Your task to perform on an android device: delete a single message in the gmail app Image 0: 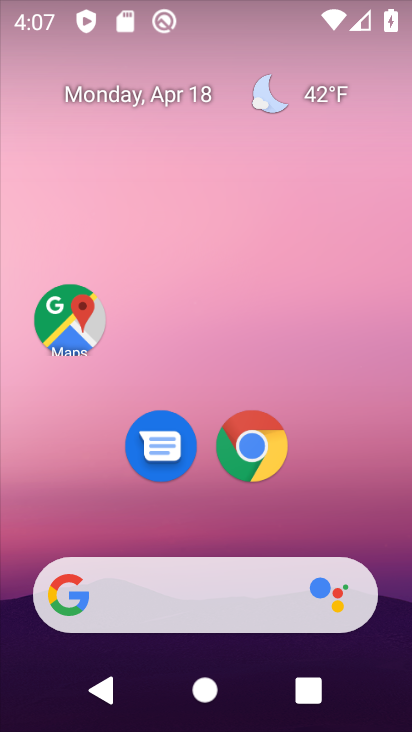
Step 0: drag from (393, 503) to (354, 126)
Your task to perform on an android device: delete a single message in the gmail app Image 1: 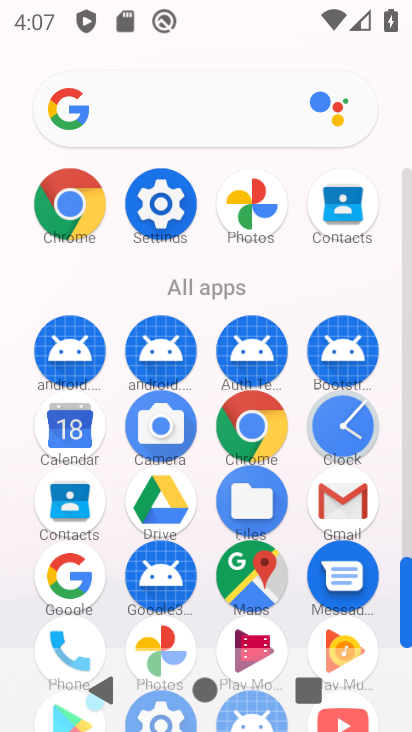
Step 1: click (331, 510)
Your task to perform on an android device: delete a single message in the gmail app Image 2: 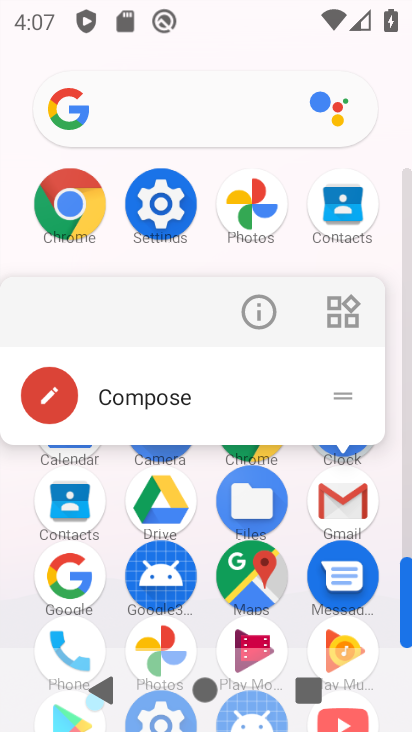
Step 2: click (337, 505)
Your task to perform on an android device: delete a single message in the gmail app Image 3: 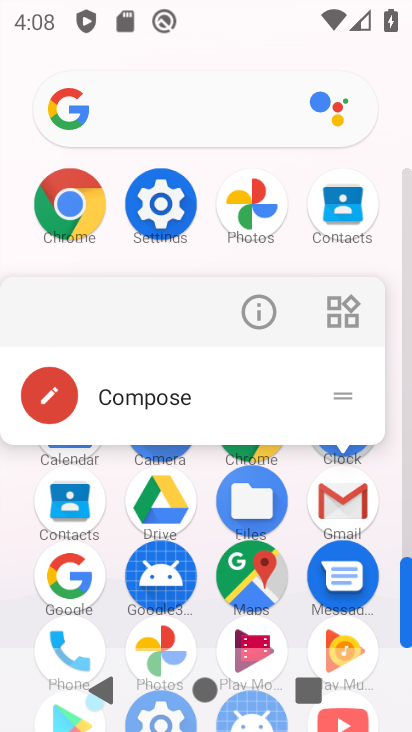
Step 3: click (344, 503)
Your task to perform on an android device: delete a single message in the gmail app Image 4: 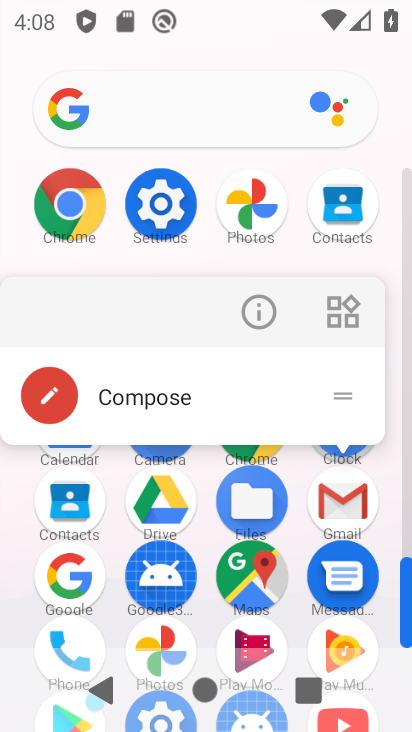
Step 4: click (343, 504)
Your task to perform on an android device: delete a single message in the gmail app Image 5: 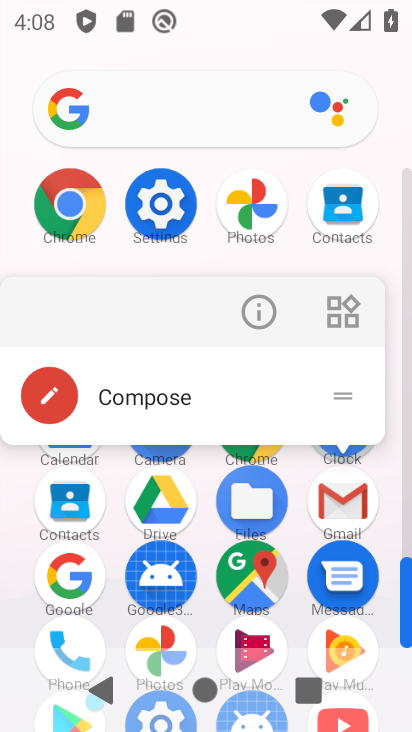
Step 5: click (353, 502)
Your task to perform on an android device: delete a single message in the gmail app Image 6: 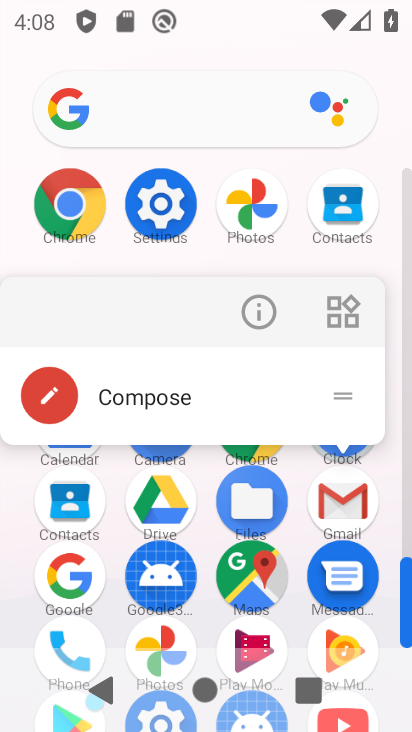
Step 6: click (345, 511)
Your task to perform on an android device: delete a single message in the gmail app Image 7: 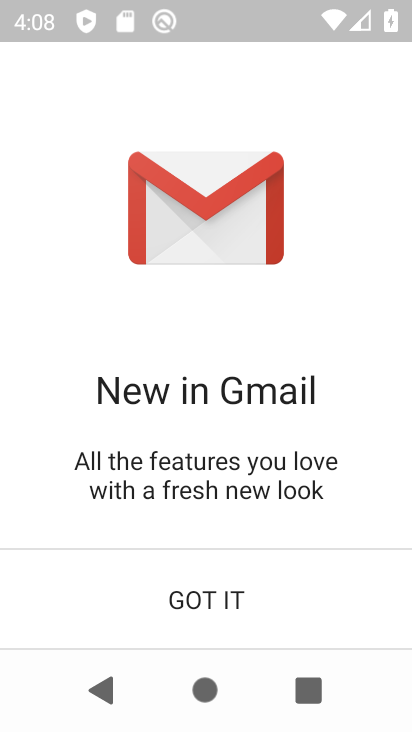
Step 7: click (206, 598)
Your task to perform on an android device: delete a single message in the gmail app Image 8: 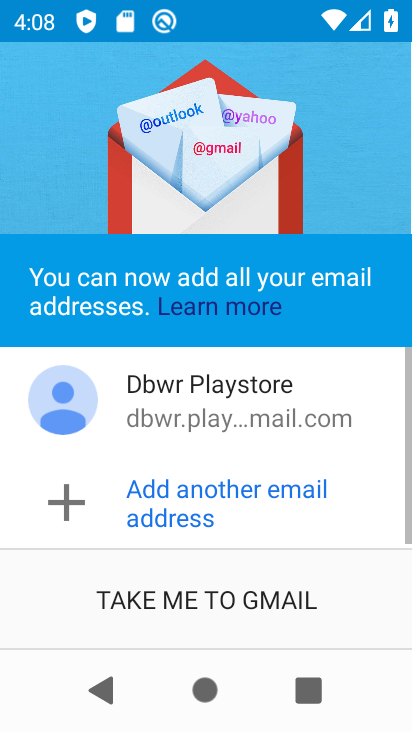
Step 8: click (220, 594)
Your task to perform on an android device: delete a single message in the gmail app Image 9: 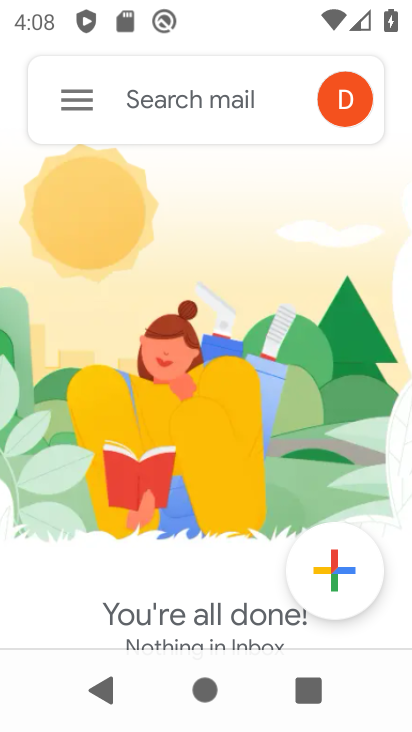
Step 9: click (68, 98)
Your task to perform on an android device: delete a single message in the gmail app Image 10: 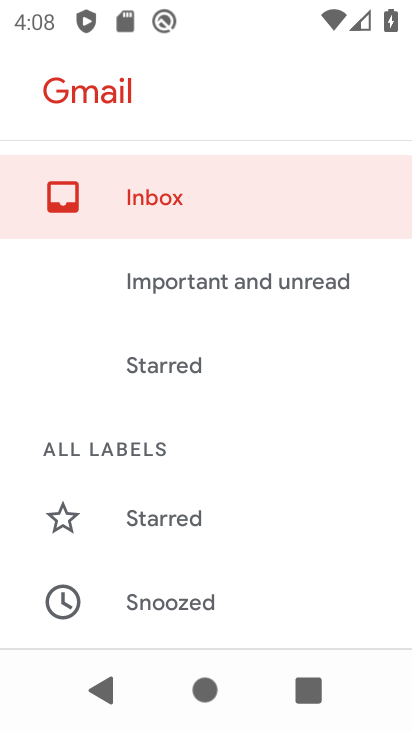
Step 10: drag from (179, 446) to (250, 165)
Your task to perform on an android device: delete a single message in the gmail app Image 11: 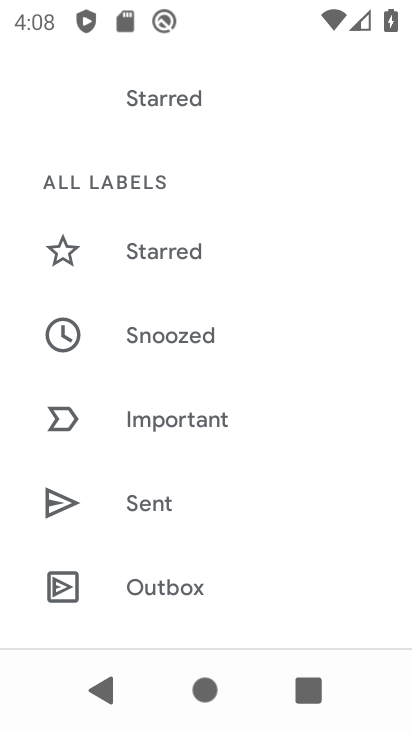
Step 11: drag from (232, 541) to (267, 267)
Your task to perform on an android device: delete a single message in the gmail app Image 12: 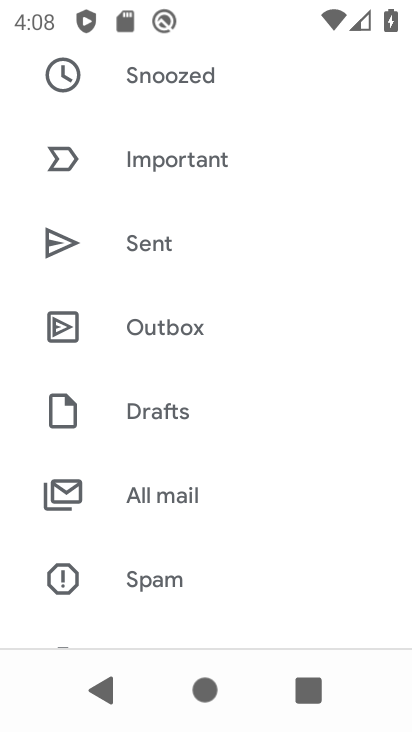
Step 12: click (152, 486)
Your task to perform on an android device: delete a single message in the gmail app Image 13: 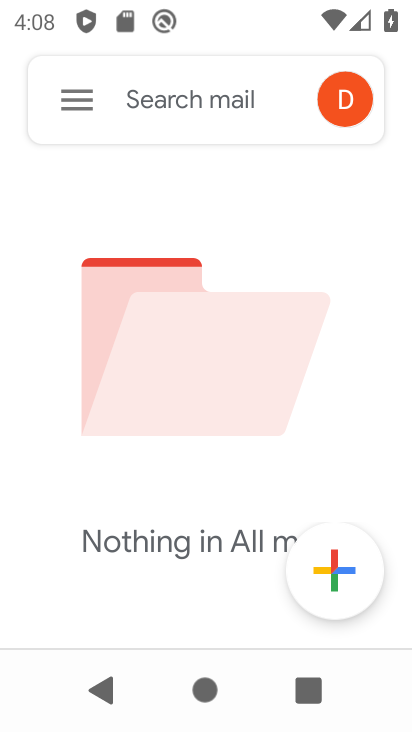
Step 13: task complete